Your task to perform on an android device: Clear the cart on ebay. Add "macbook pro 15 inch" to the cart on ebay Image 0: 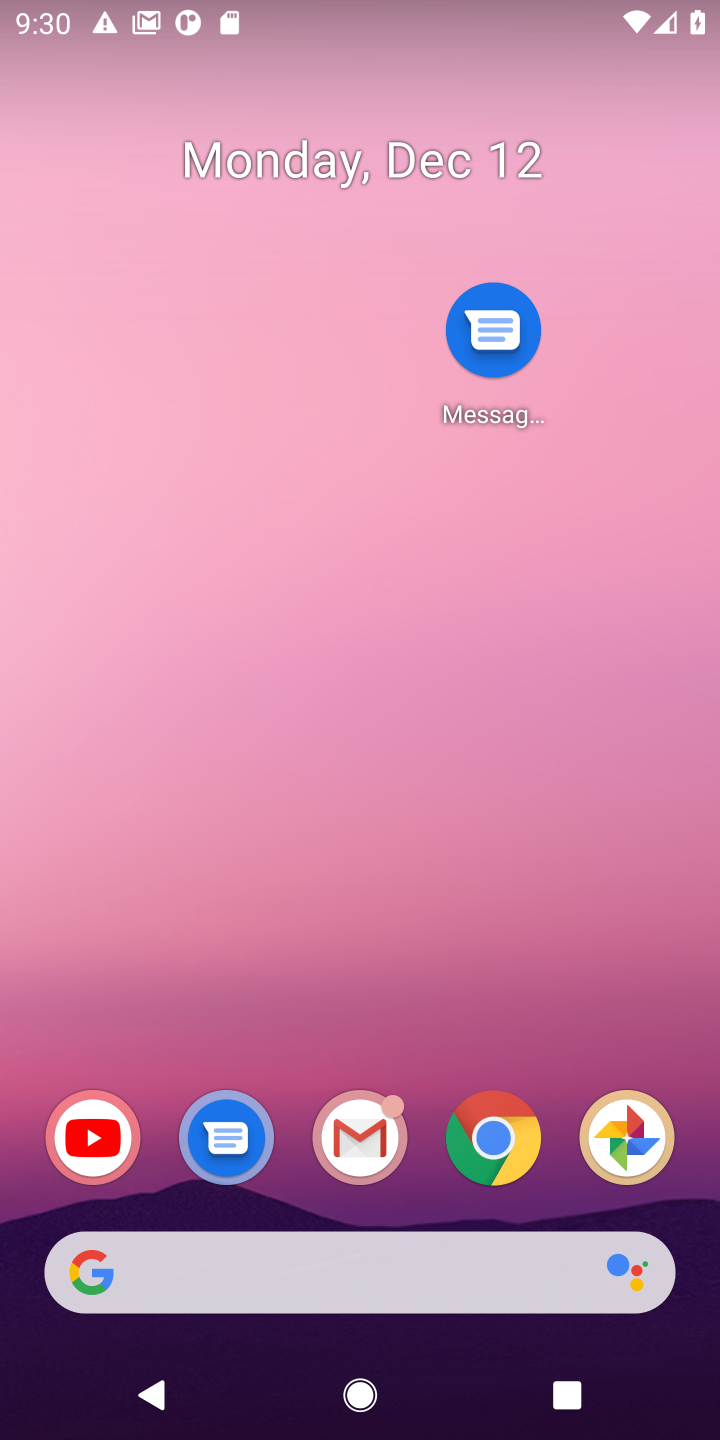
Step 0: drag from (300, 1080) to (219, 337)
Your task to perform on an android device: Clear the cart on ebay. Add "macbook pro 15 inch" to the cart on ebay Image 1: 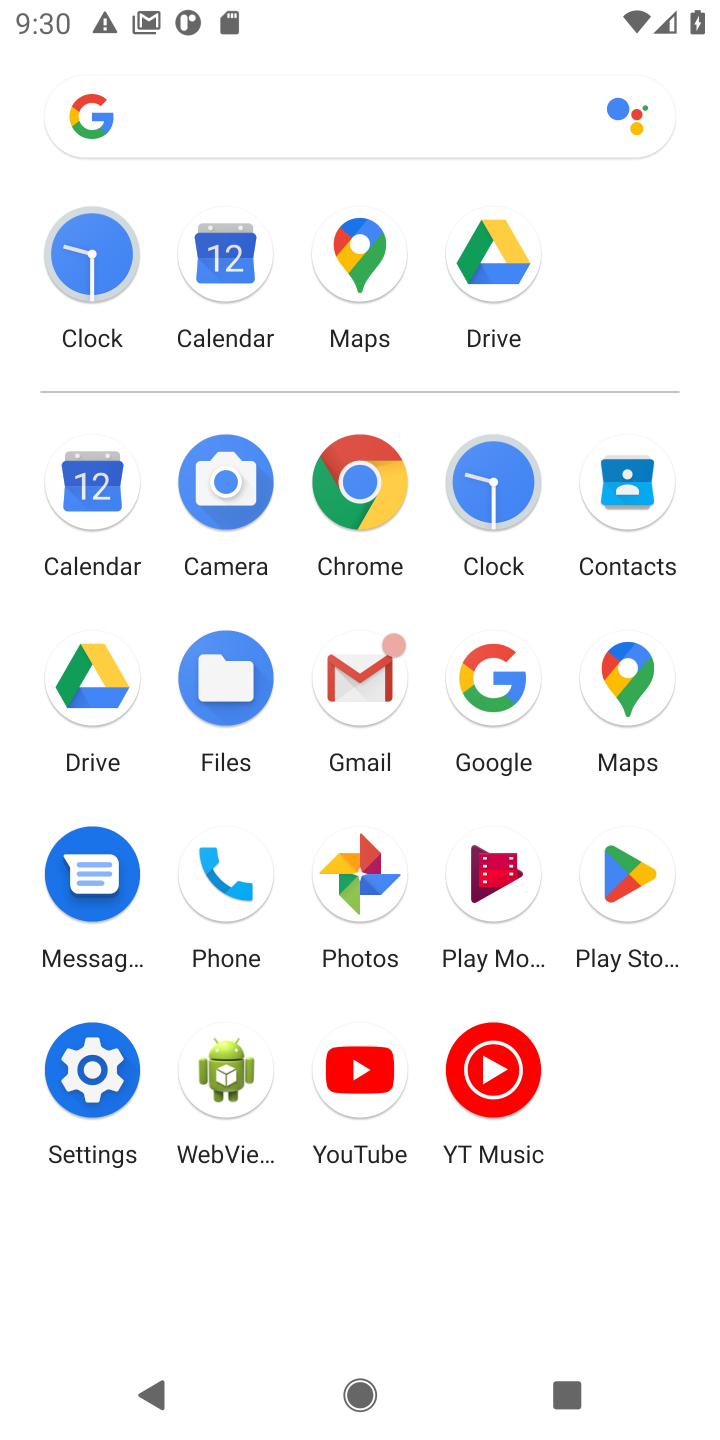
Step 1: click (475, 677)
Your task to perform on an android device: Clear the cart on ebay. Add "macbook pro 15 inch" to the cart on ebay Image 2: 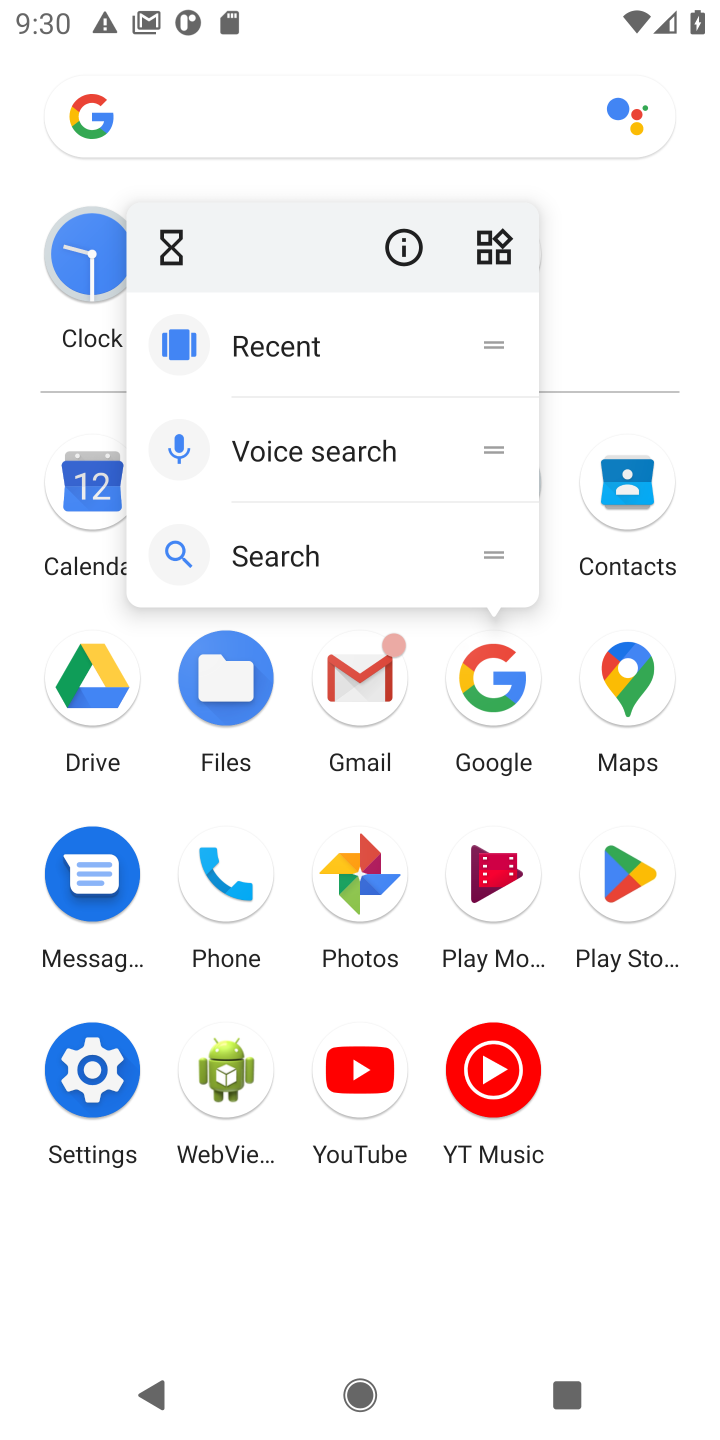
Step 2: click (490, 681)
Your task to perform on an android device: Clear the cart on ebay. Add "macbook pro 15 inch" to the cart on ebay Image 3: 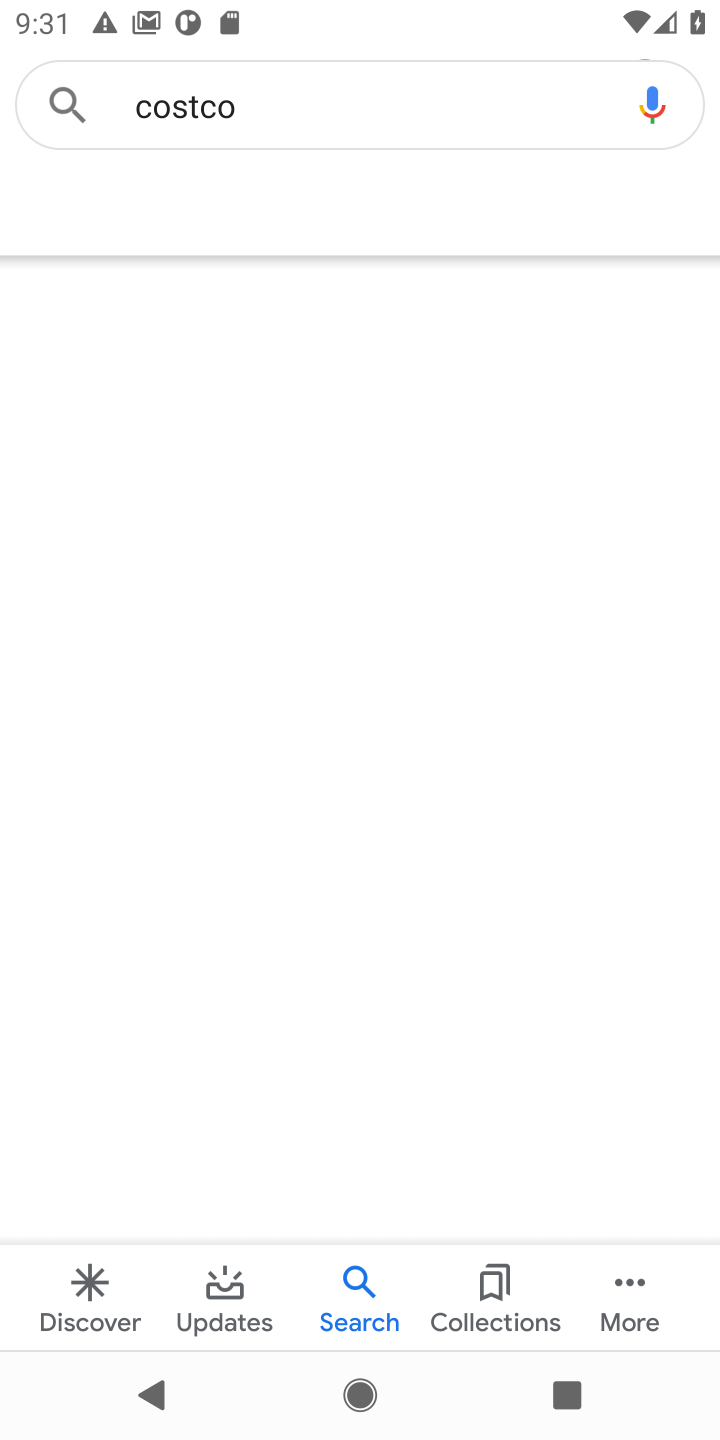
Step 3: click (189, 109)
Your task to perform on an android device: Clear the cart on ebay. Add "macbook pro 15 inch" to the cart on ebay Image 4: 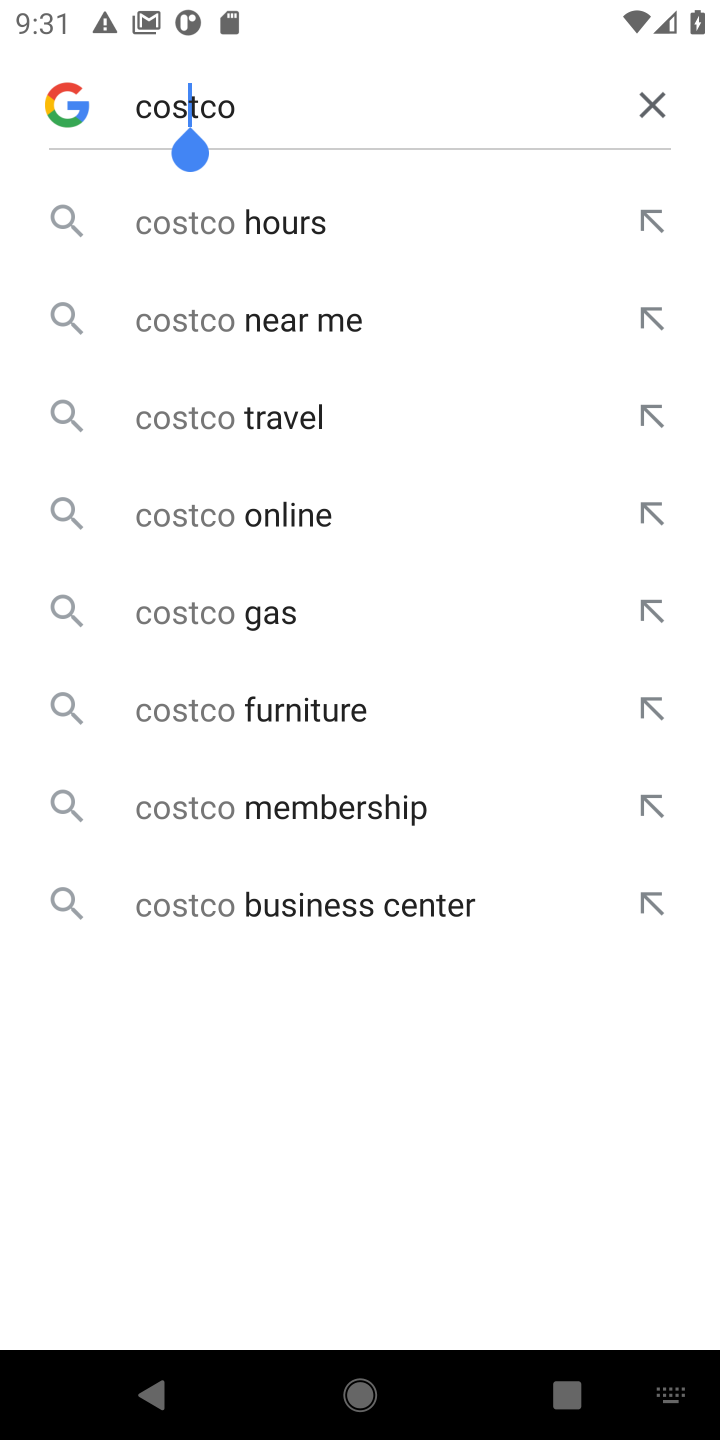
Step 4: click (649, 118)
Your task to perform on an android device: Clear the cart on ebay. Add "macbook pro 15 inch" to the cart on ebay Image 5: 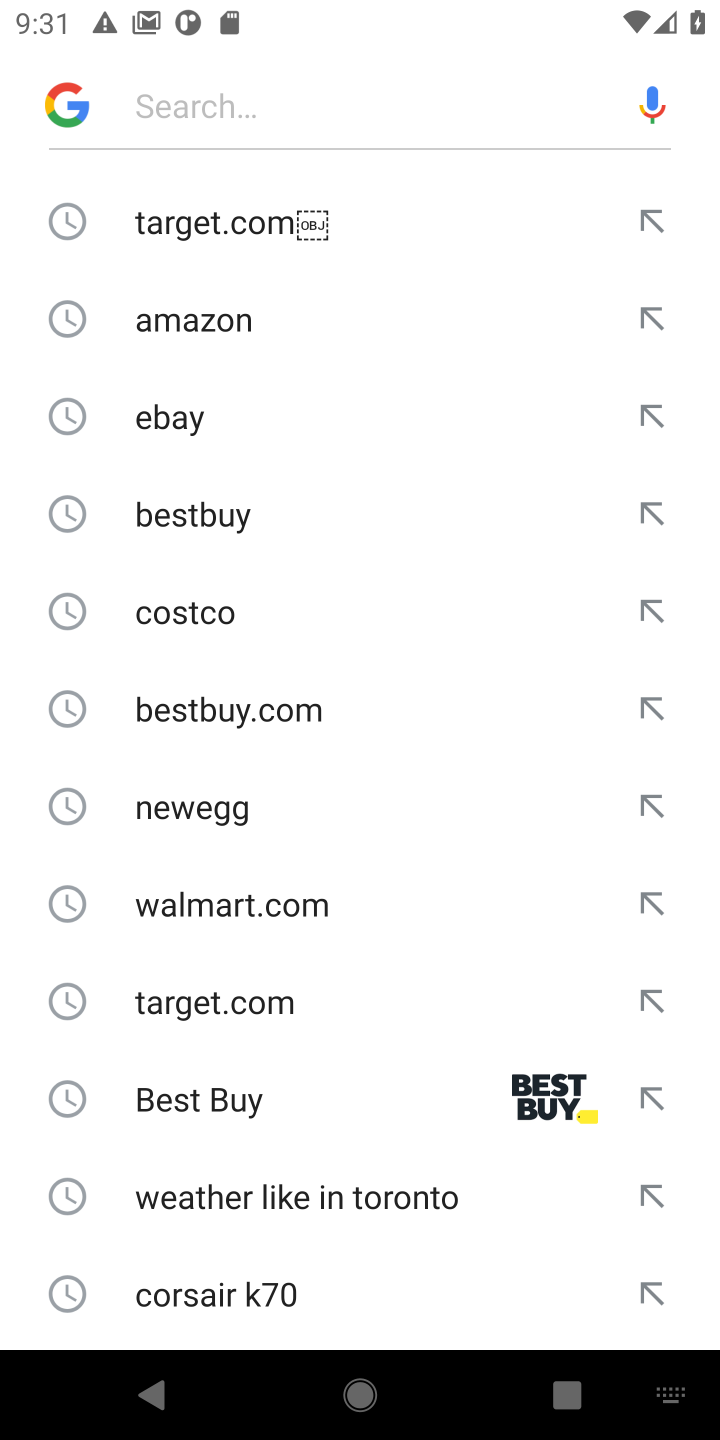
Step 5: click (184, 420)
Your task to perform on an android device: Clear the cart on ebay. Add "macbook pro 15 inch" to the cart on ebay Image 6: 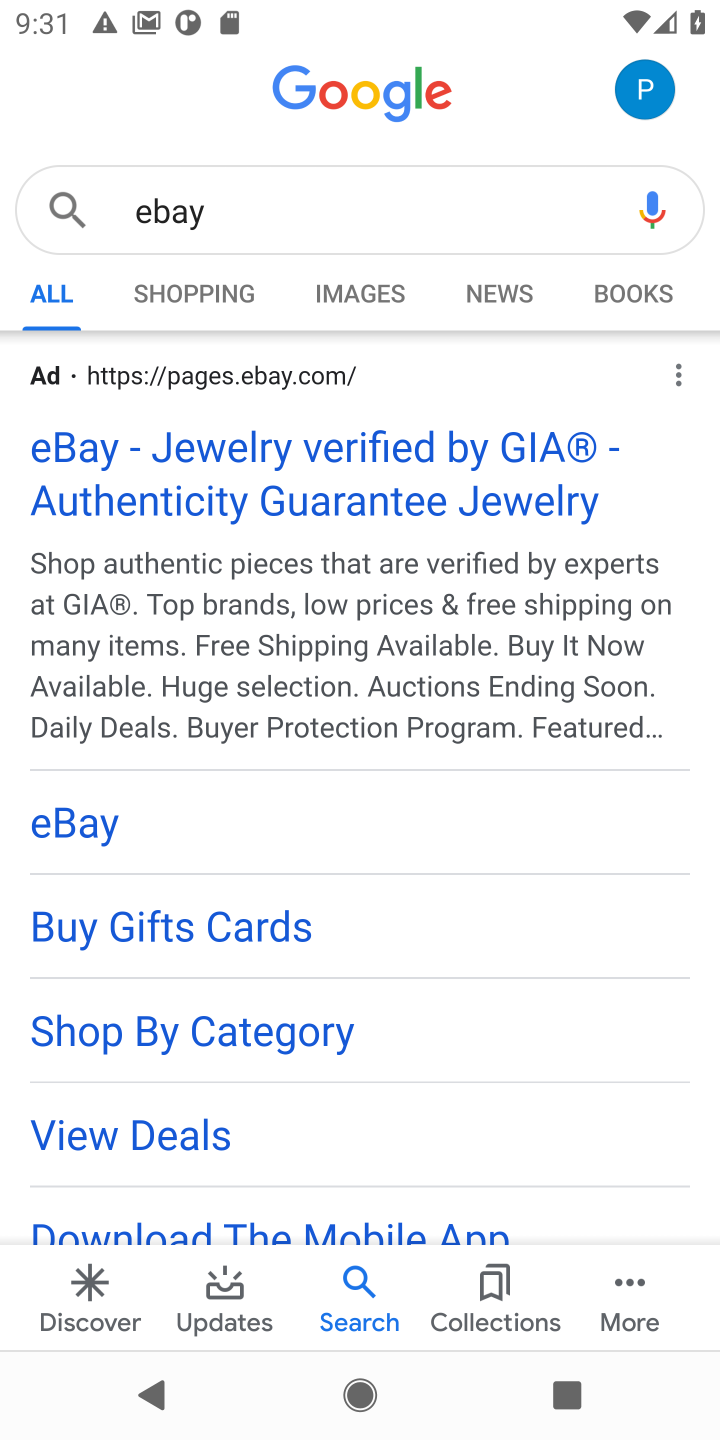
Step 6: click (207, 473)
Your task to perform on an android device: Clear the cart on ebay. Add "macbook pro 15 inch" to the cart on ebay Image 7: 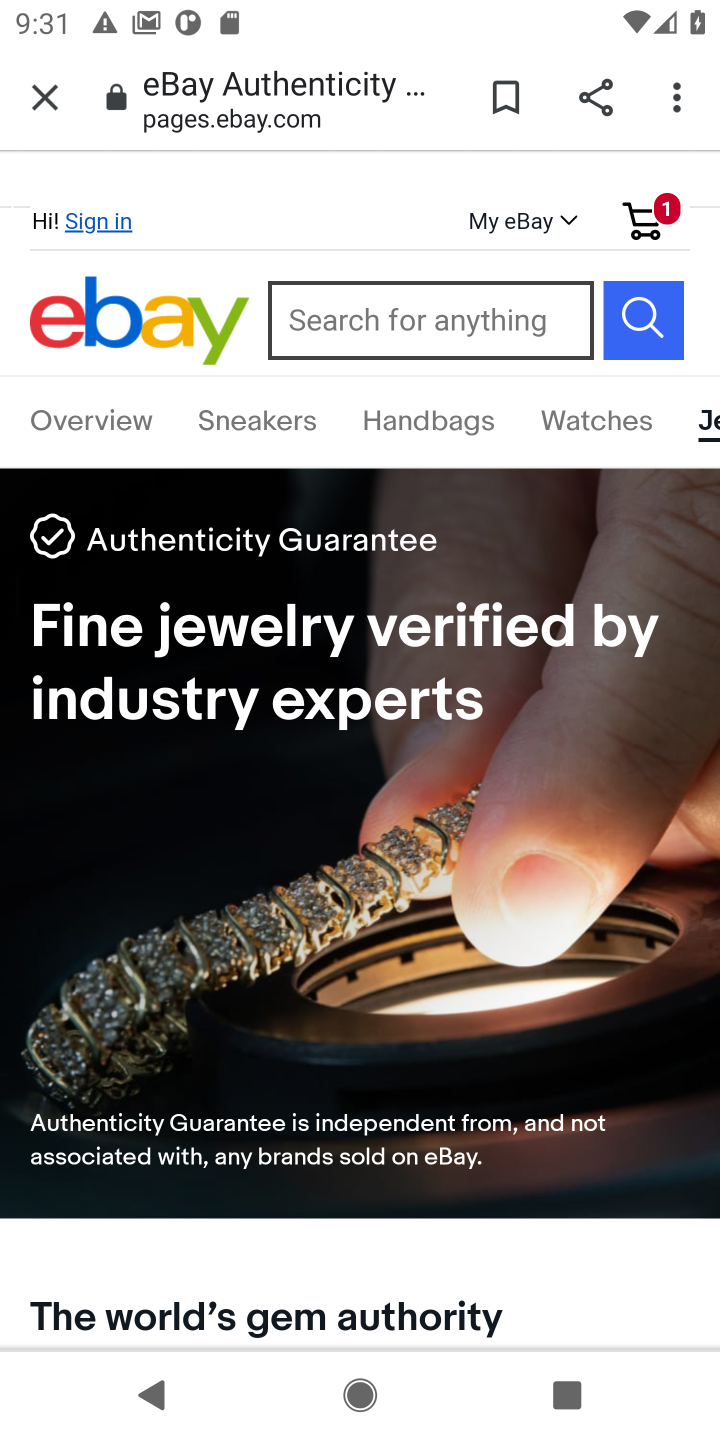
Step 7: click (409, 309)
Your task to perform on an android device: Clear the cart on ebay. Add "macbook pro 15 inch" to the cart on ebay Image 8: 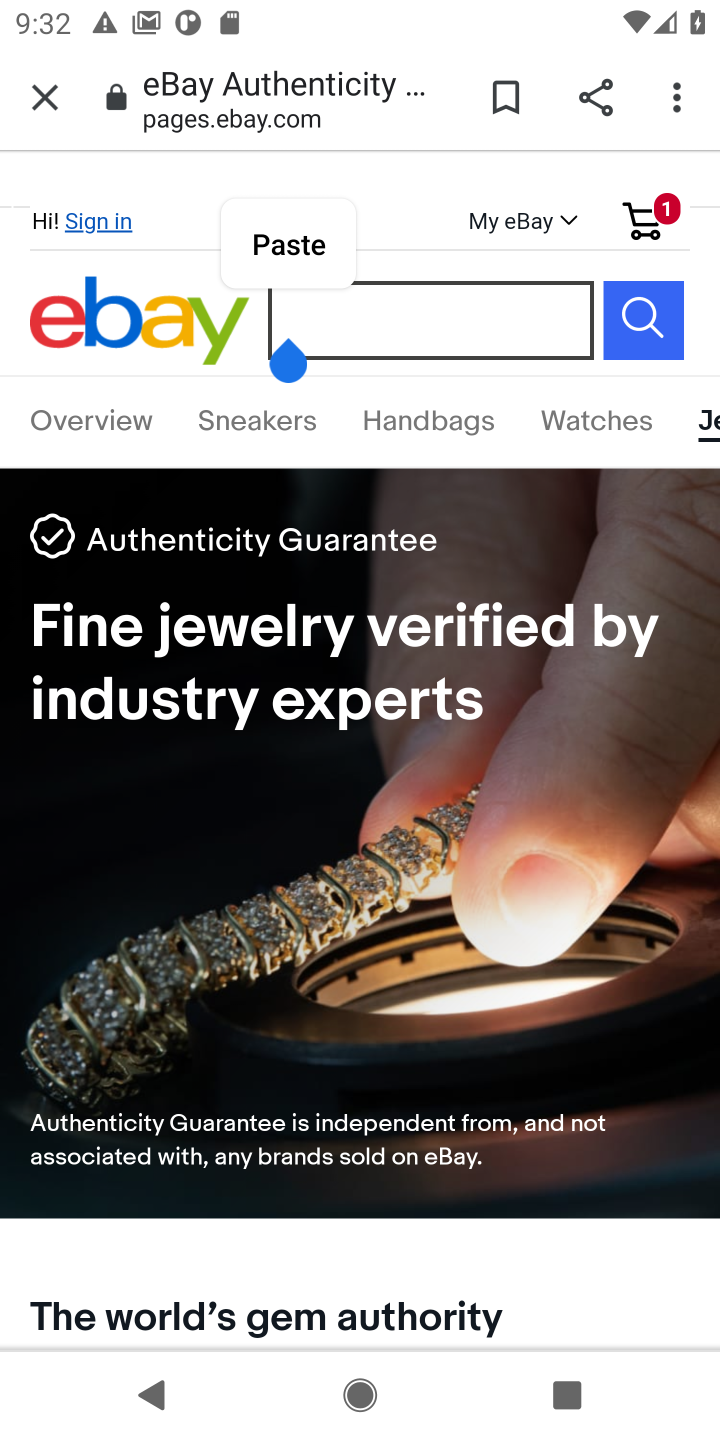
Step 8: type "macbook pro 15 inch"
Your task to perform on an android device: Clear the cart on ebay. Add "macbook pro 15 inch" to the cart on ebay Image 9: 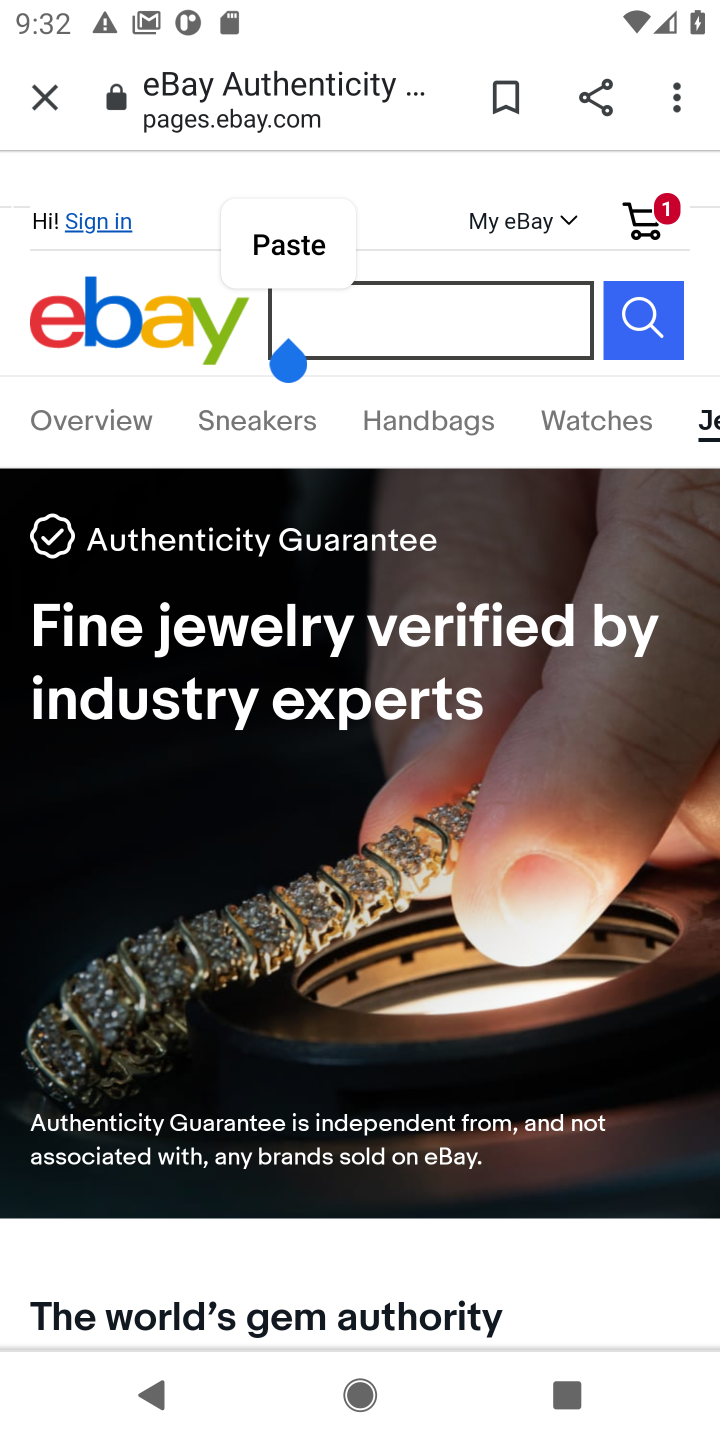
Step 9: click (649, 329)
Your task to perform on an android device: Clear the cart on ebay. Add "macbook pro 15 inch" to the cart on ebay Image 10: 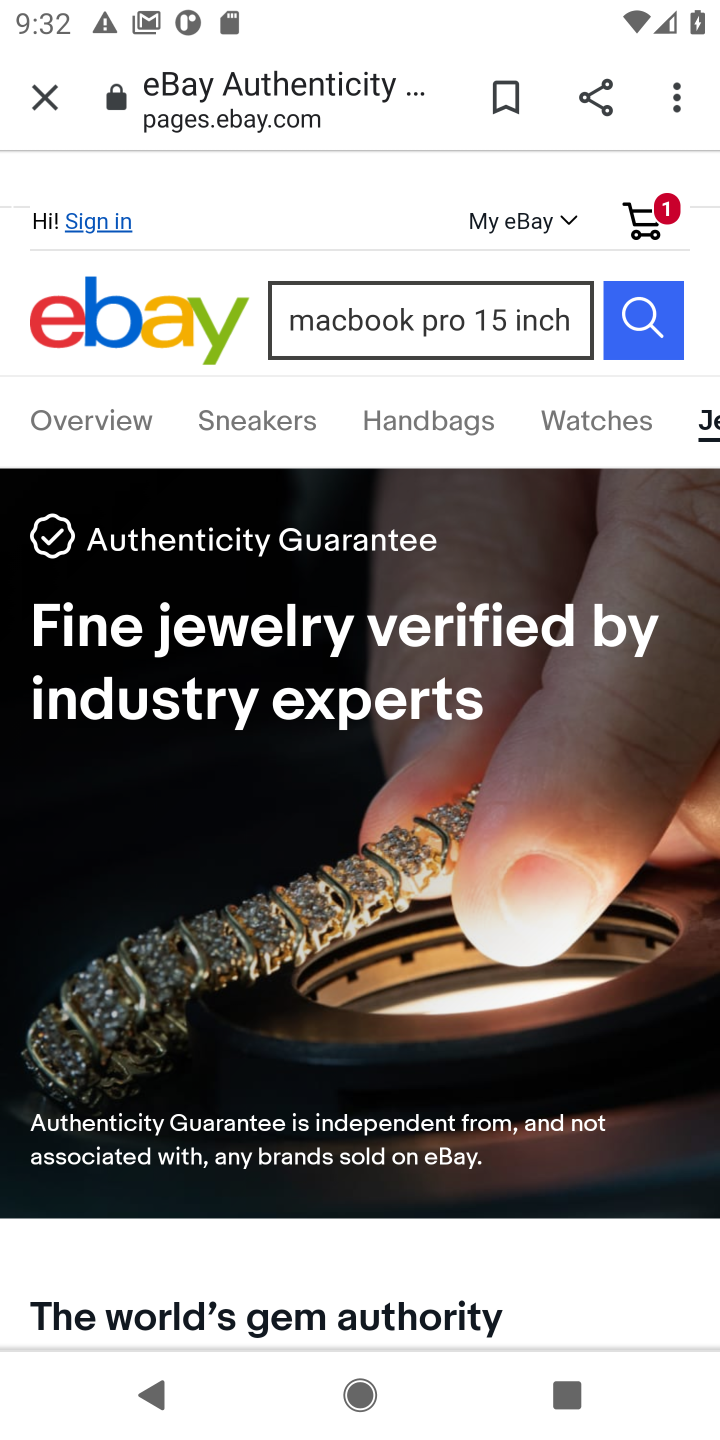
Step 10: click (659, 319)
Your task to perform on an android device: Clear the cart on ebay. Add "macbook pro 15 inch" to the cart on ebay Image 11: 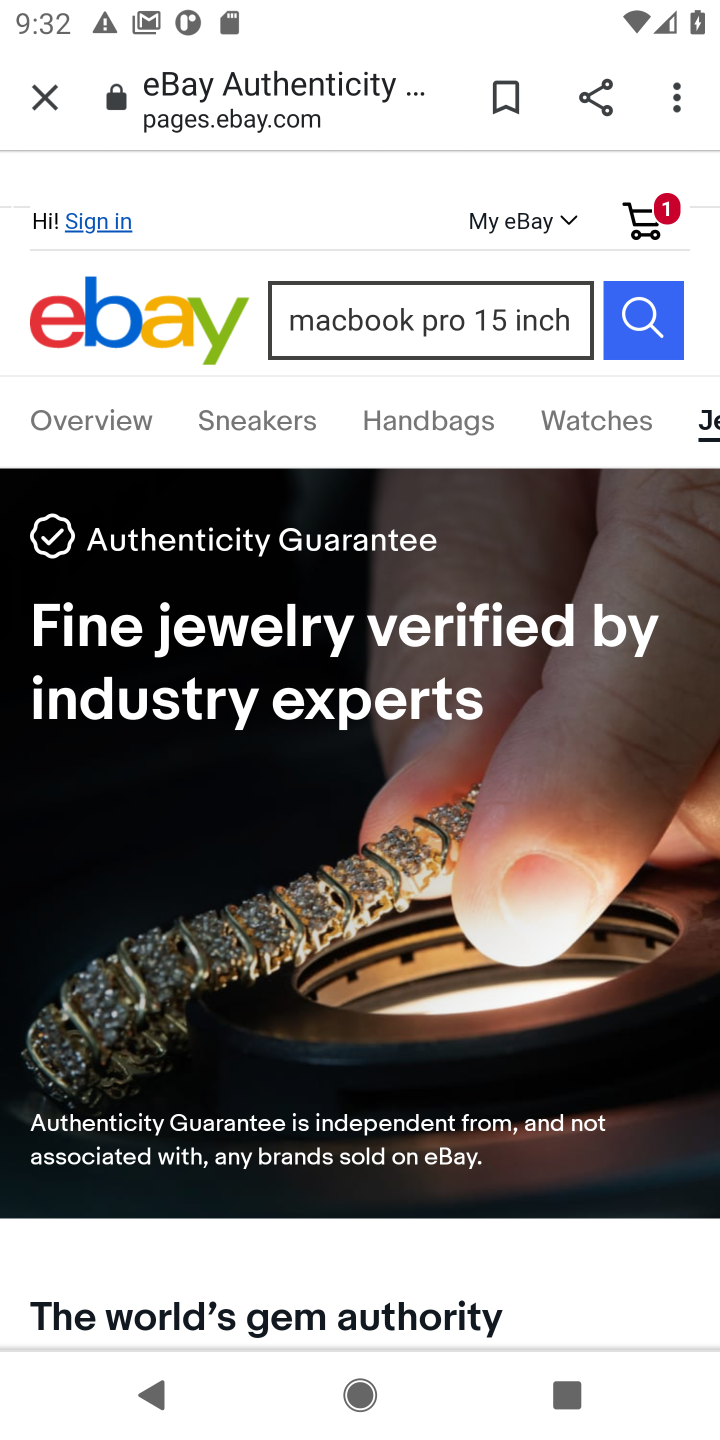
Step 11: click (650, 317)
Your task to perform on an android device: Clear the cart on ebay. Add "macbook pro 15 inch" to the cart on ebay Image 12: 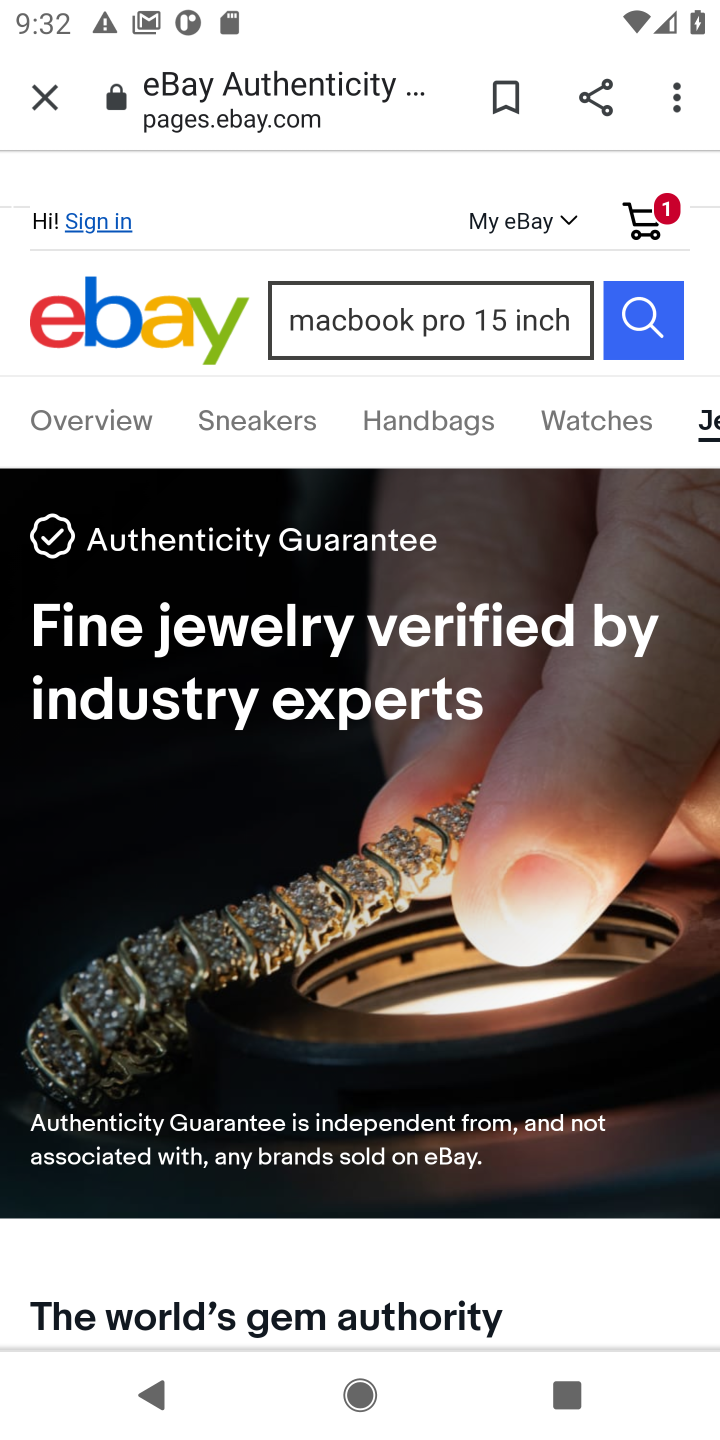
Step 12: task complete